Your task to perform on an android device: How do I get to the nearest Nordstrom? Image 0: 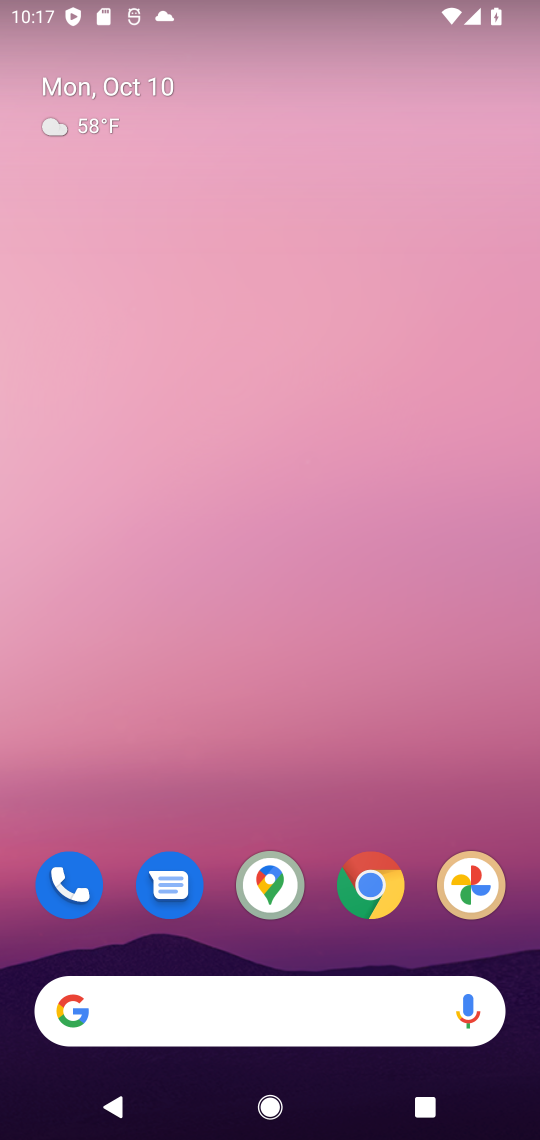
Step 0: click (538, 910)
Your task to perform on an android device: How do I get to the nearest Nordstrom? Image 1: 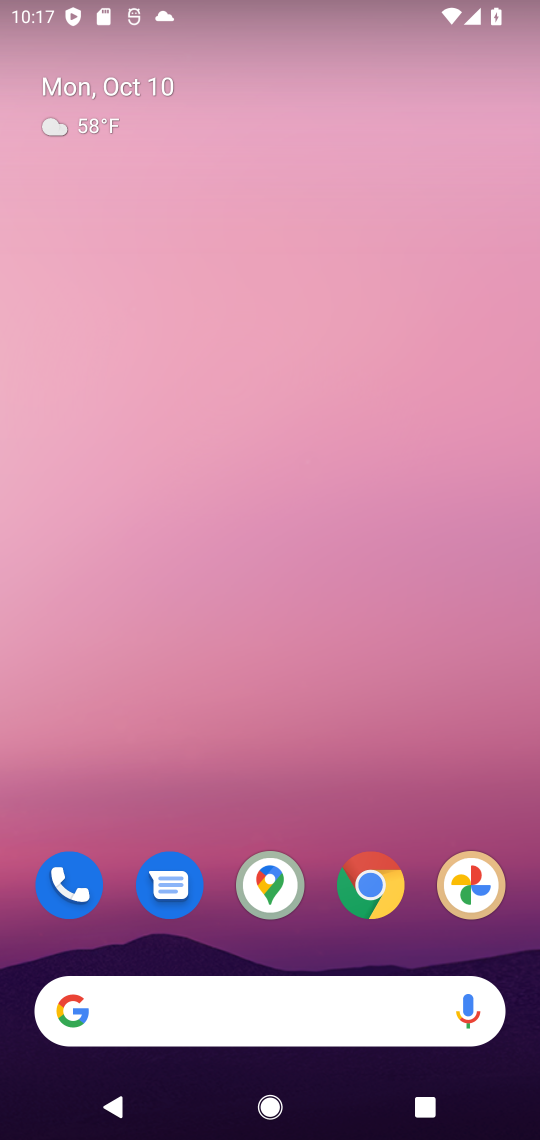
Step 1: click (393, 869)
Your task to perform on an android device: How do I get to the nearest Nordstrom? Image 2: 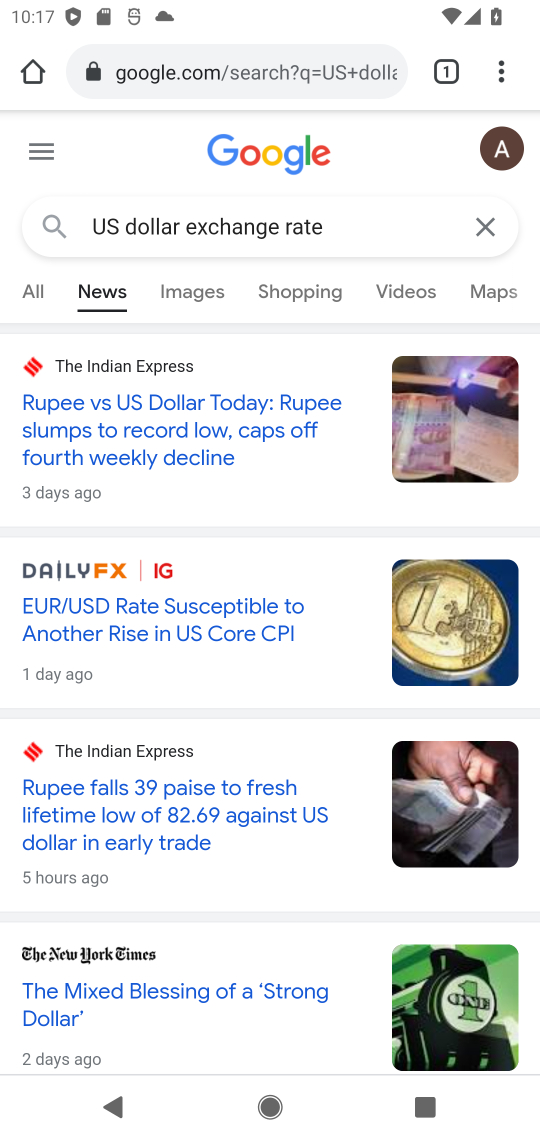
Step 2: drag from (439, 488) to (287, 52)
Your task to perform on an android device: How do I get to the nearest Nordstrom? Image 3: 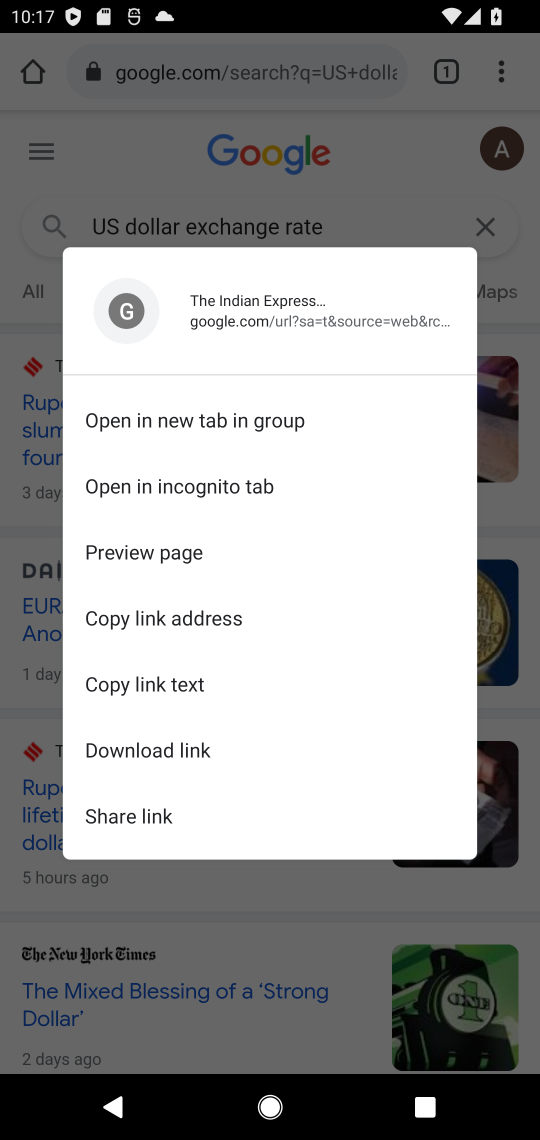
Step 3: click (288, 73)
Your task to perform on an android device: How do I get to the nearest Nordstrom? Image 4: 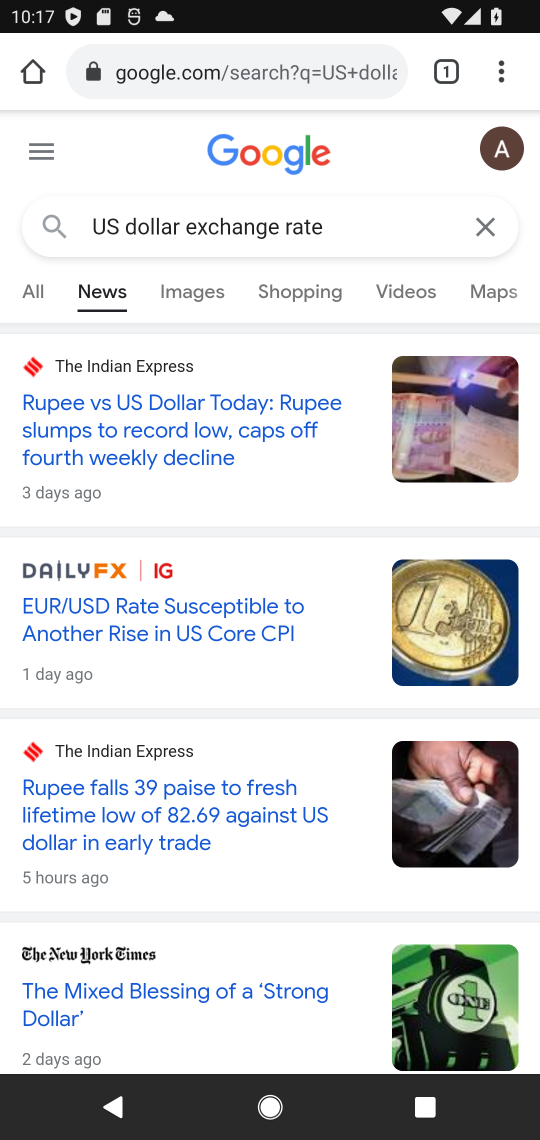
Step 4: click (288, 73)
Your task to perform on an android device: How do I get to the nearest Nordstrom? Image 5: 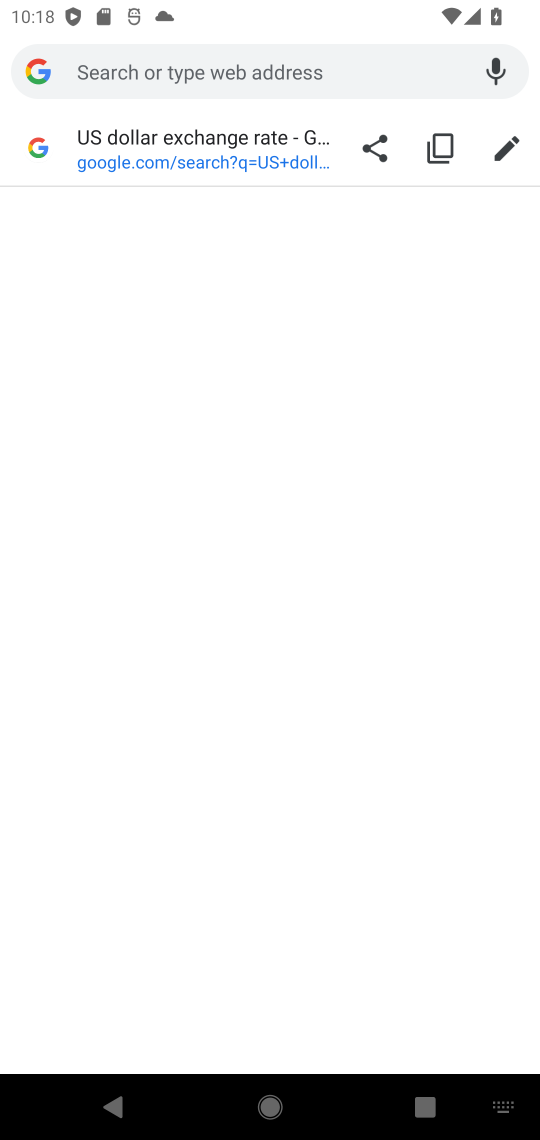
Step 5: type "directions to nearest nordstrom"
Your task to perform on an android device: How do I get to the nearest Nordstrom? Image 6: 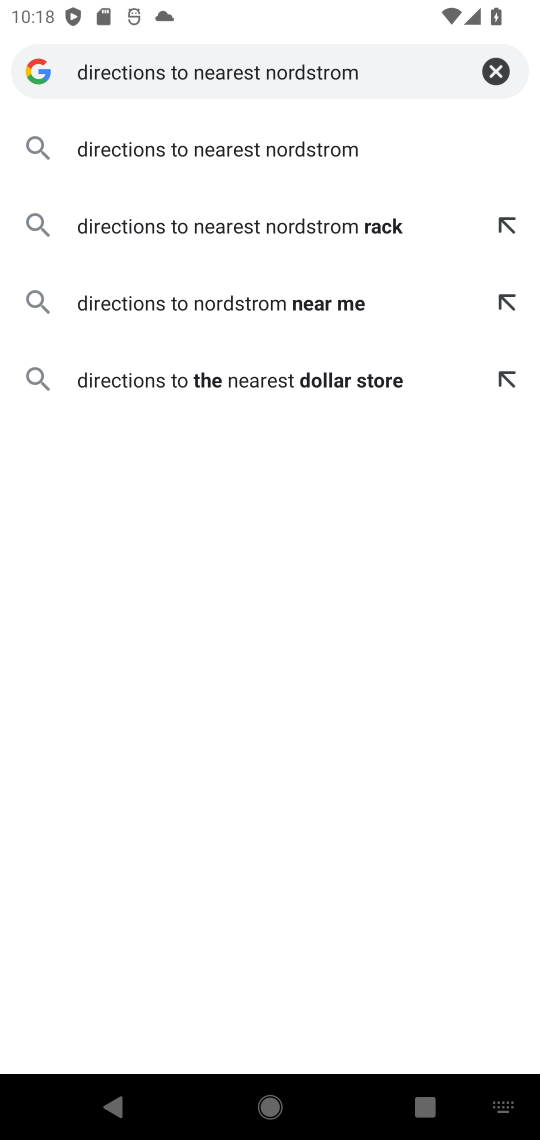
Step 6: click (236, 162)
Your task to perform on an android device: How do I get to the nearest Nordstrom? Image 7: 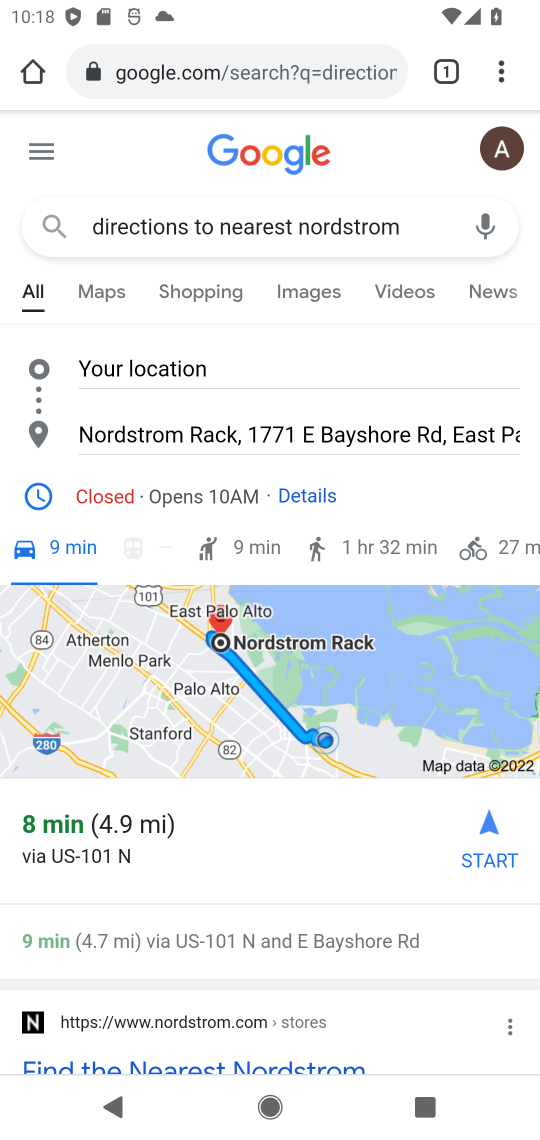
Step 7: click (485, 839)
Your task to perform on an android device: How do I get to the nearest Nordstrom? Image 8: 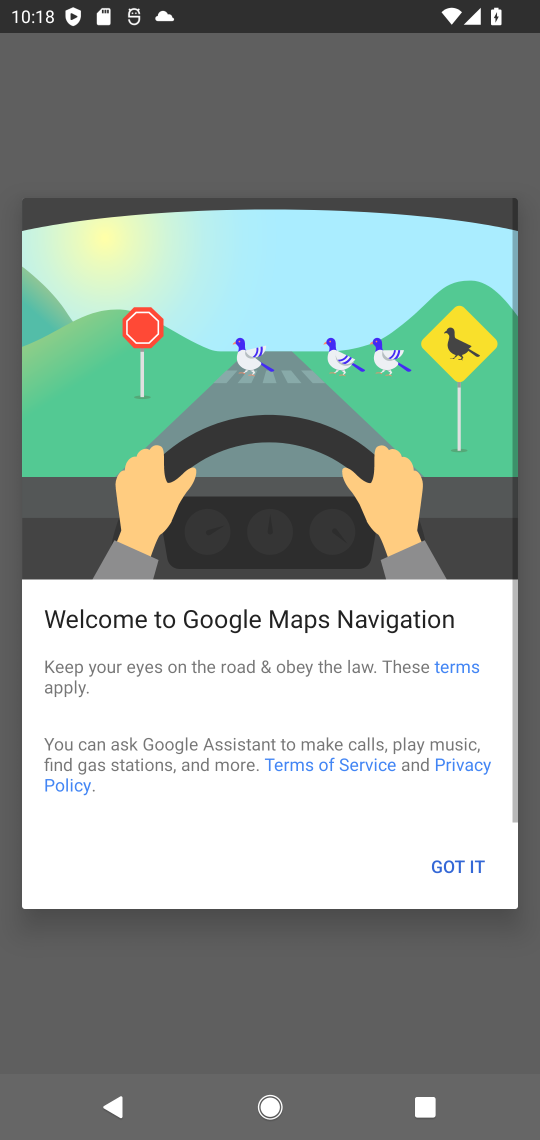
Step 8: click (474, 867)
Your task to perform on an android device: How do I get to the nearest Nordstrom? Image 9: 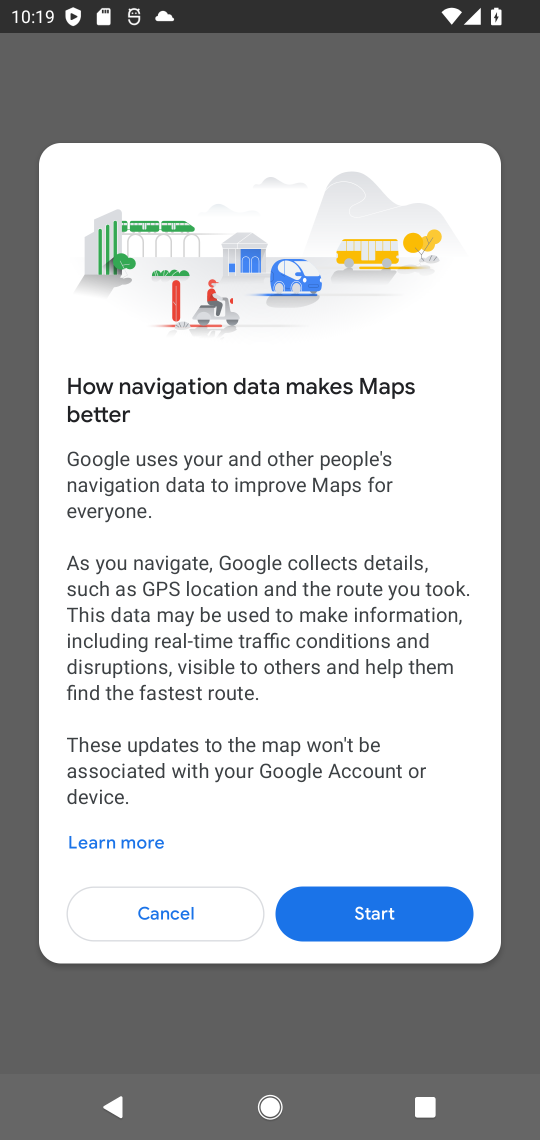
Step 9: click (335, 918)
Your task to perform on an android device: How do I get to the nearest Nordstrom? Image 10: 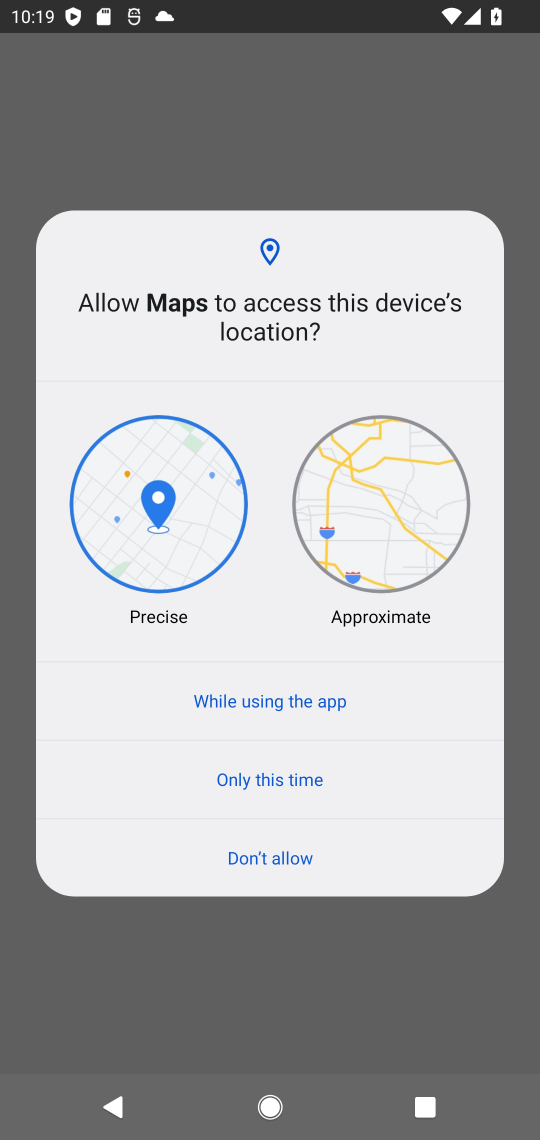
Step 10: click (273, 699)
Your task to perform on an android device: How do I get to the nearest Nordstrom? Image 11: 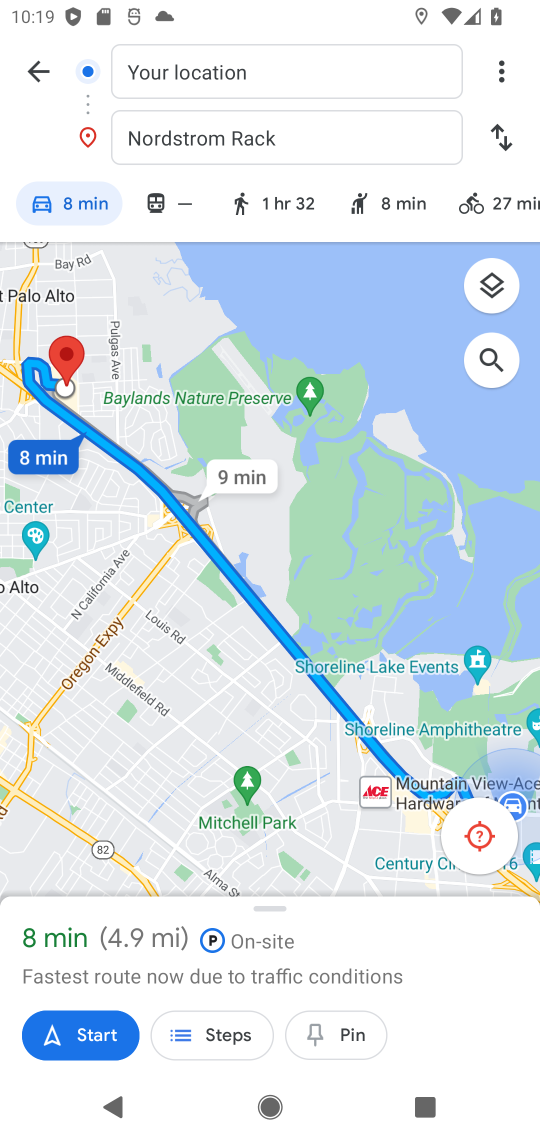
Step 11: task complete